Your task to perform on an android device: open app "Paramount+ | Peak Streaming" (install if not already installed) Image 0: 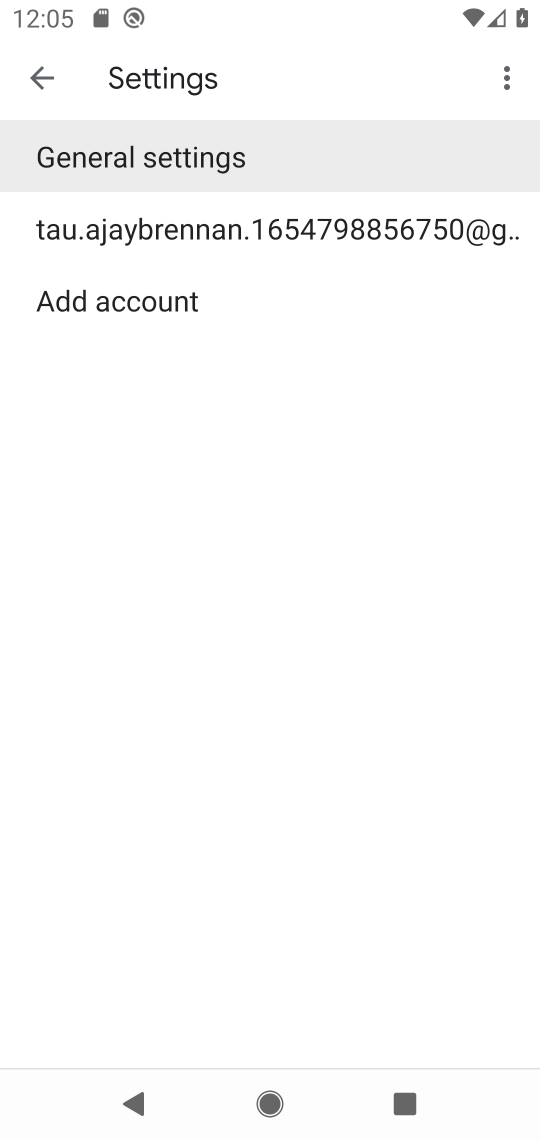
Step 0: press home button
Your task to perform on an android device: open app "Paramount+ | Peak Streaming" (install if not already installed) Image 1: 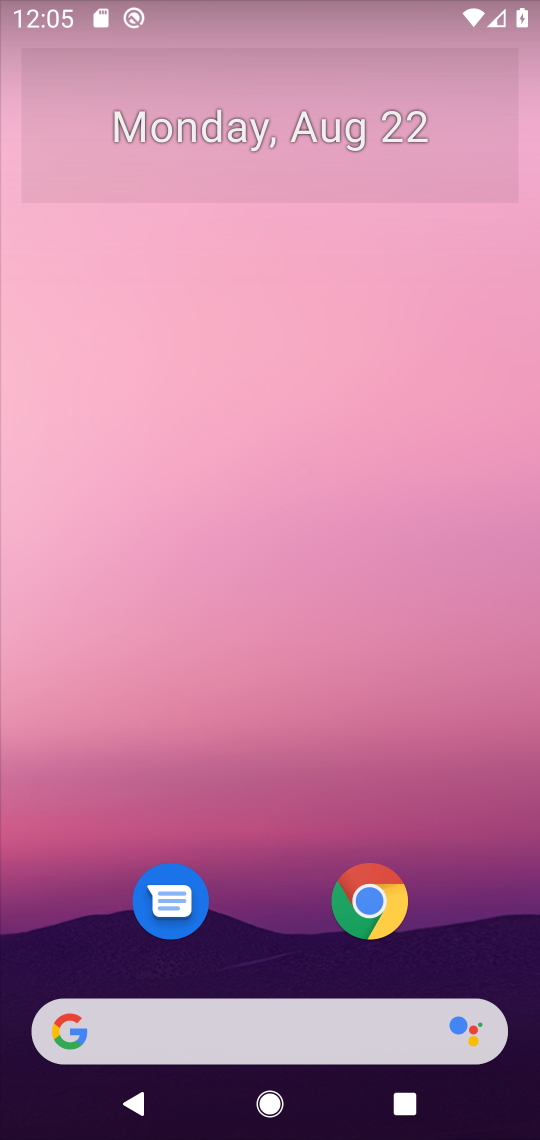
Step 1: drag from (269, 977) to (299, 121)
Your task to perform on an android device: open app "Paramount+ | Peak Streaming" (install if not already installed) Image 2: 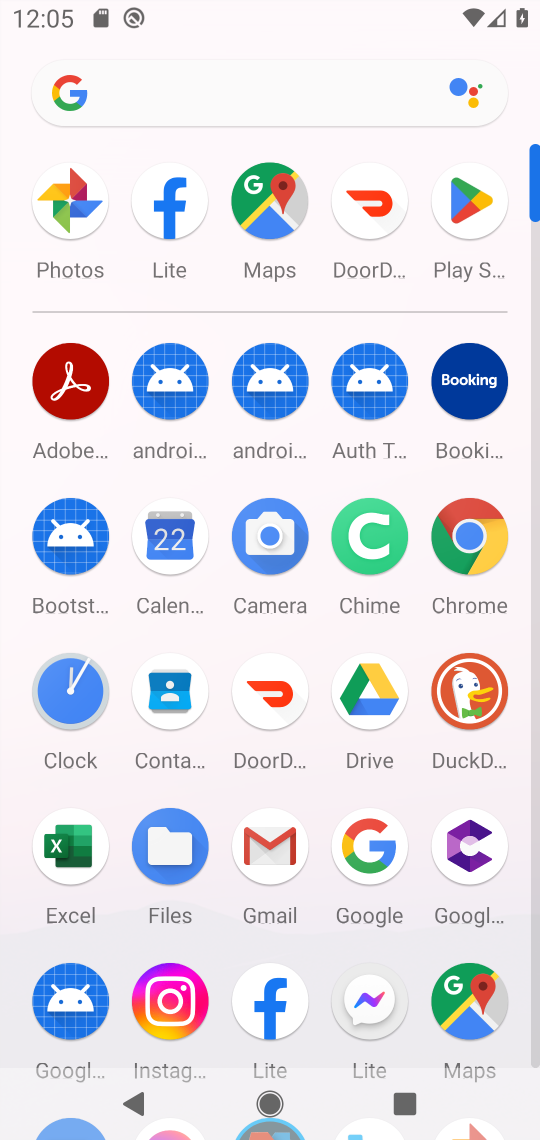
Step 2: click (469, 229)
Your task to perform on an android device: open app "Paramount+ | Peak Streaming" (install if not already installed) Image 3: 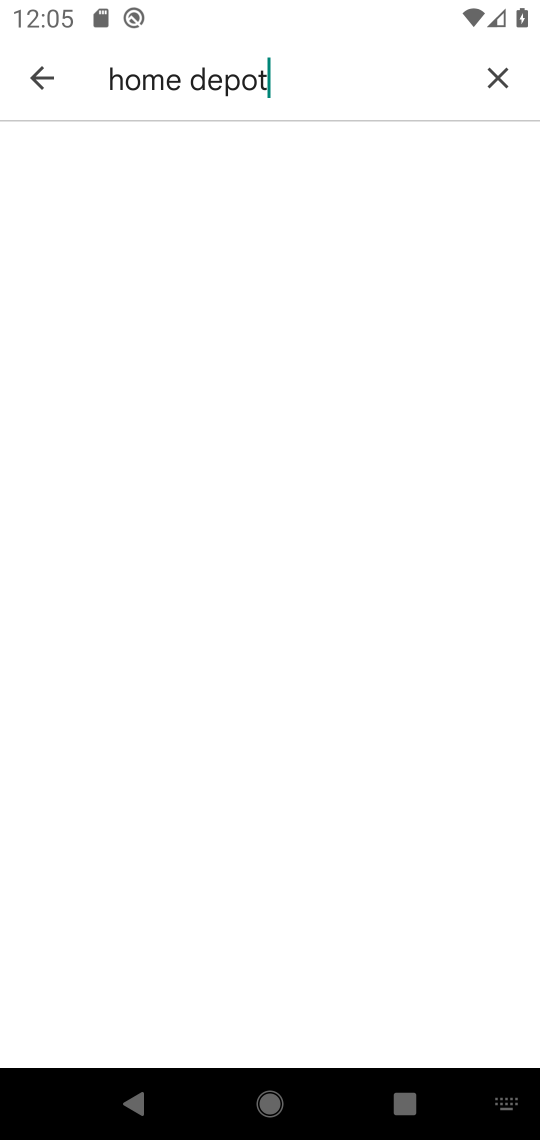
Step 3: click (495, 90)
Your task to perform on an android device: open app "Paramount+ | Peak Streaming" (install if not already installed) Image 4: 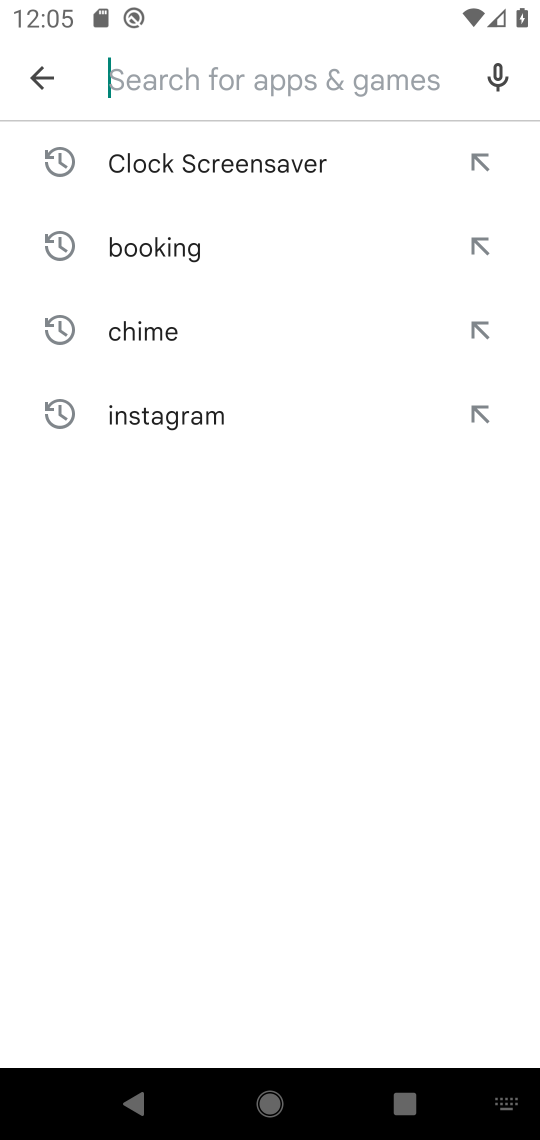
Step 4: type "paramount"
Your task to perform on an android device: open app "Paramount+ | Peak Streaming" (install if not already installed) Image 5: 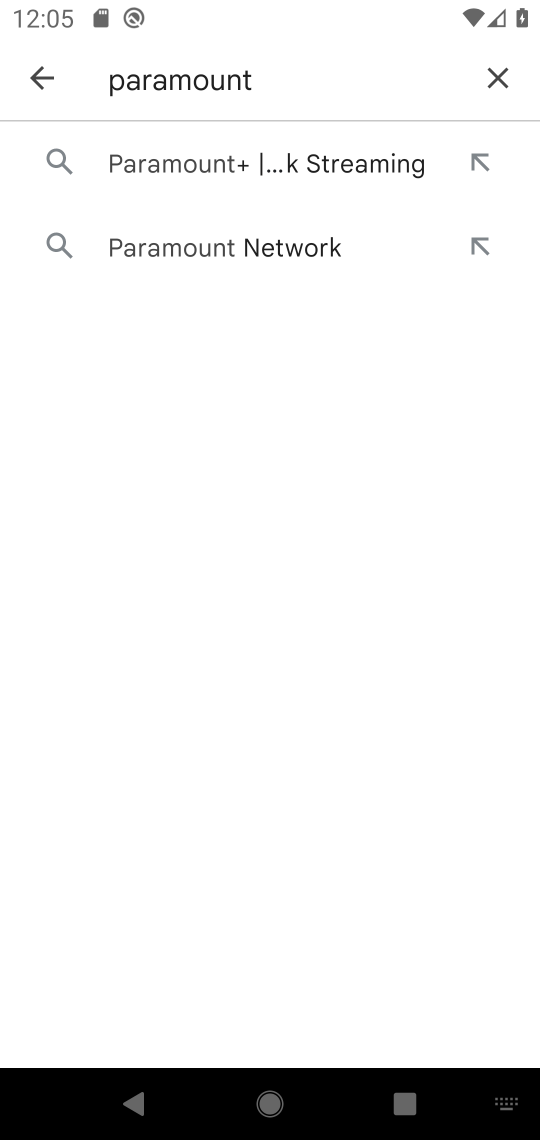
Step 5: click (239, 172)
Your task to perform on an android device: open app "Paramount+ | Peak Streaming" (install if not already installed) Image 6: 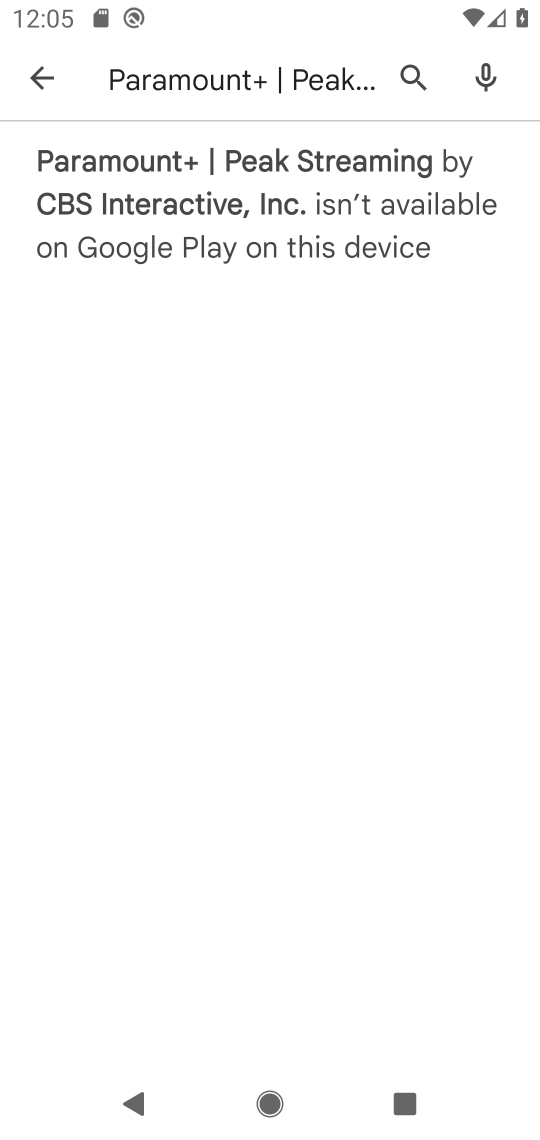
Step 6: click (226, 149)
Your task to perform on an android device: open app "Paramount+ | Peak Streaming" (install if not already installed) Image 7: 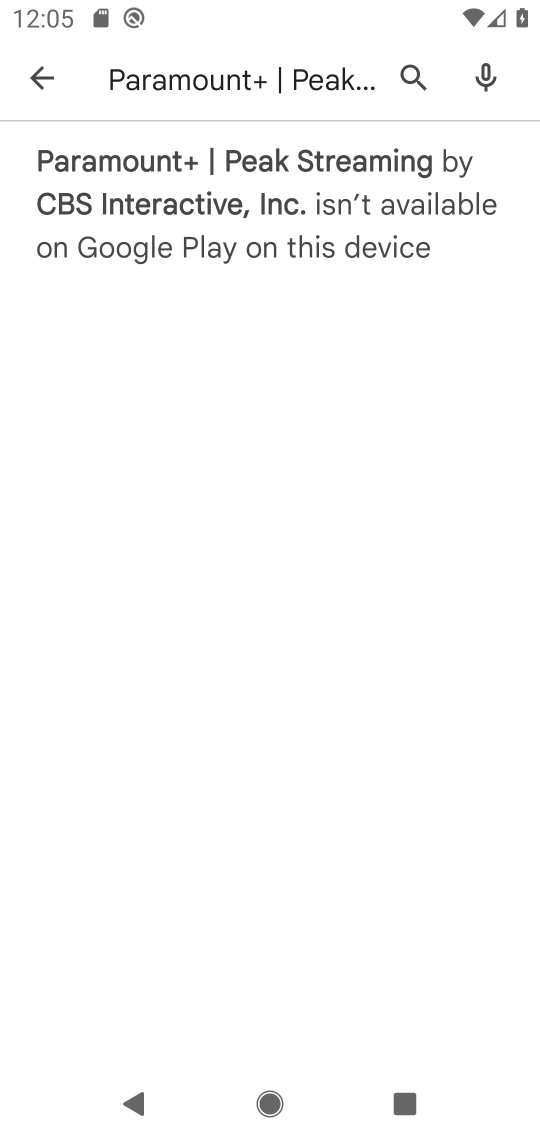
Step 7: task complete